Your task to perform on an android device: Search for "macbook" on bestbuy, select the first entry, and add it to the cart. Image 0: 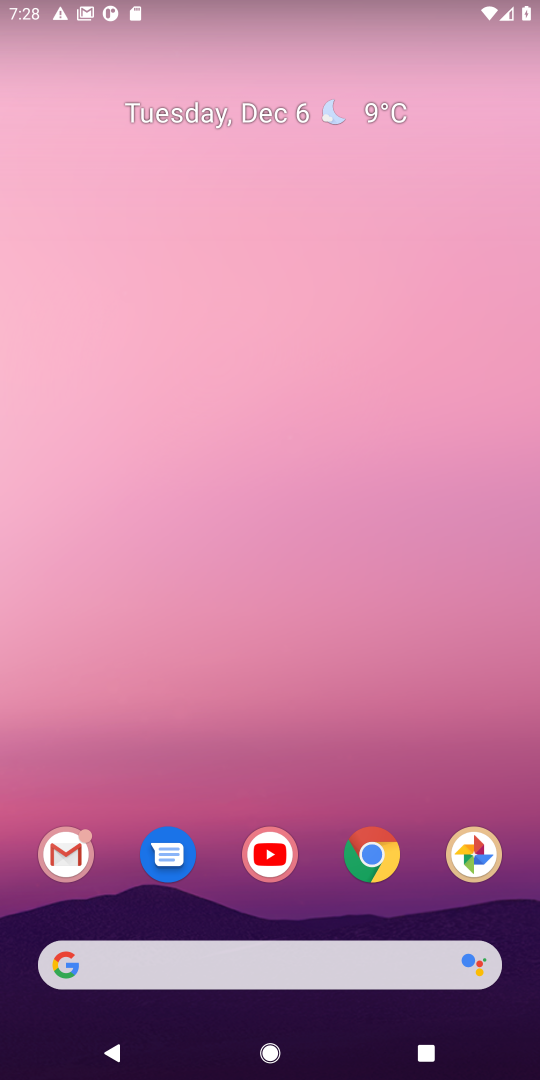
Step 0: click (372, 857)
Your task to perform on an android device: Search for "macbook" on bestbuy, select the first entry, and add it to the cart. Image 1: 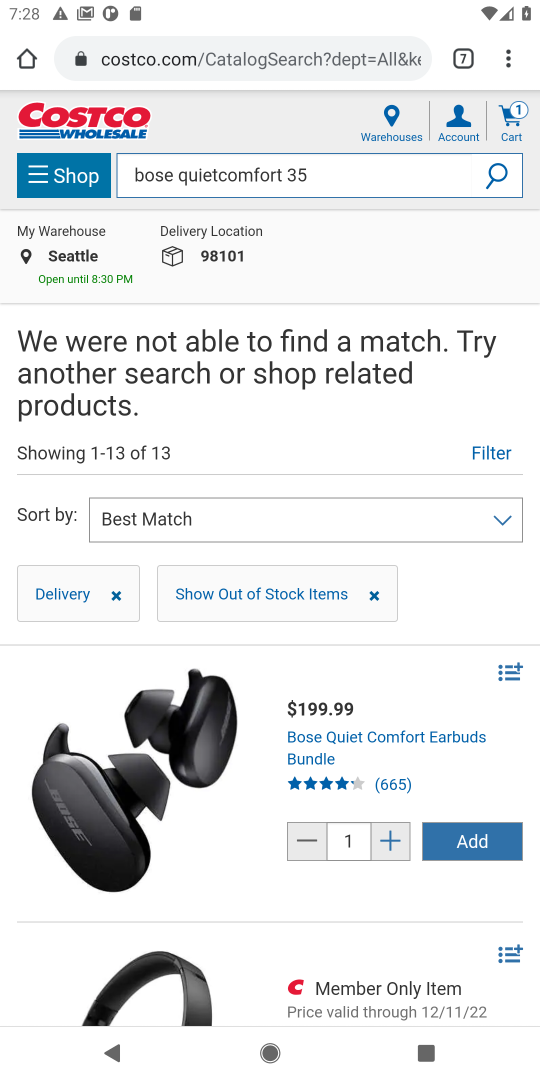
Step 1: click (462, 44)
Your task to perform on an android device: Search for "macbook" on bestbuy, select the first entry, and add it to the cart. Image 2: 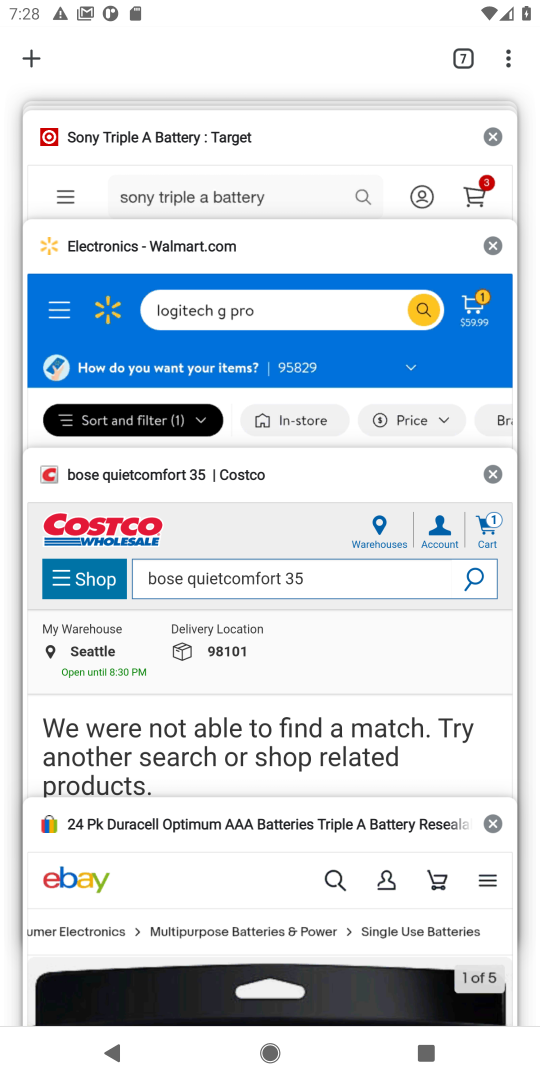
Step 2: drag from (295, 107) to (265, 210)
Your task to perform on an android device: Search for "macbook" on bestbuy, select the first entry, and add it to the cart. Image 3: 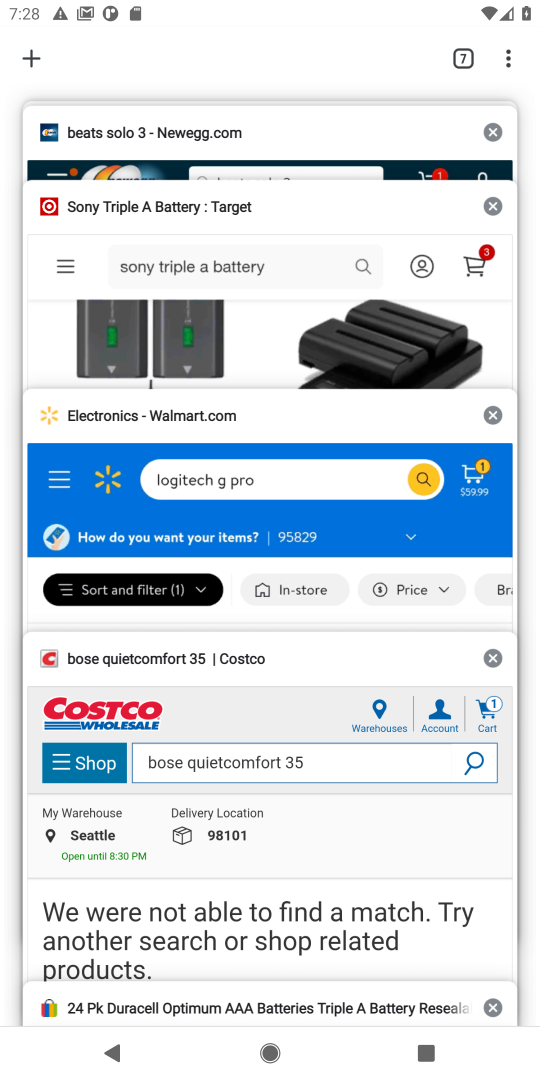
Step 3: drag from (230, 129) to (251, 337)
Your task to perform on an android device: Search for "macbook" on bestbuy, select the first entry, and add it to the cart. Image 4: 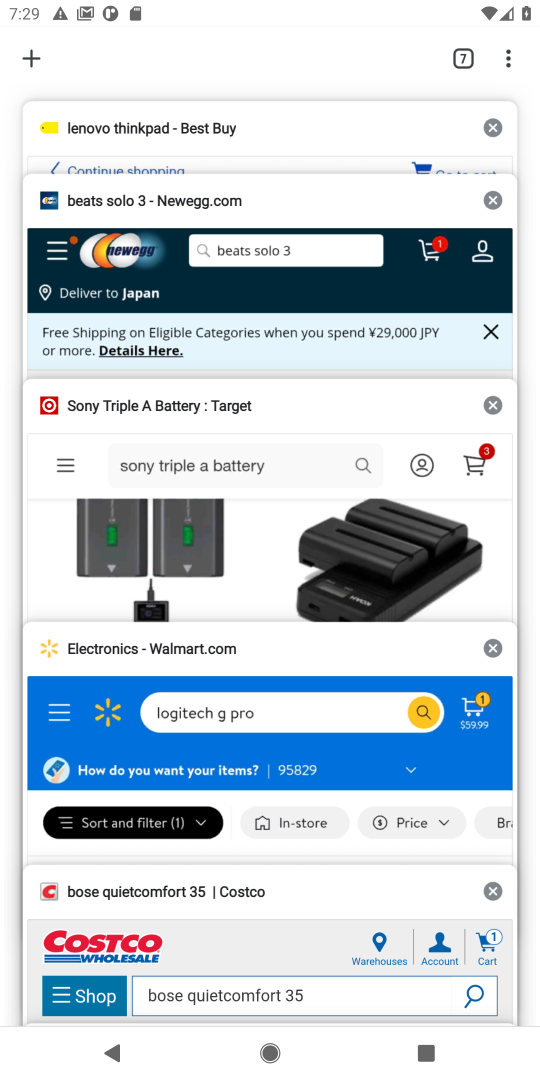
Step 4: click (201, 123)
Your task to perform on an android device: Search for "macbook" on bestbuy, select the first entry, and add it to the cart. Image 5: 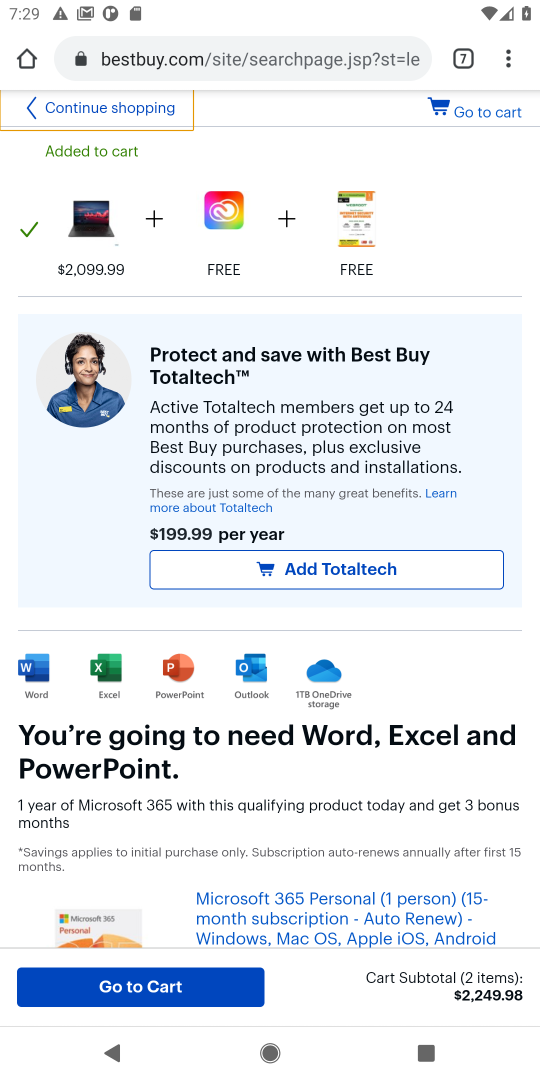
Step 5: click (157, 108)
Your task to perform on an android device: Search for "macbook" on bestbuy, select the first entry, and add it to the cart. Image 6: 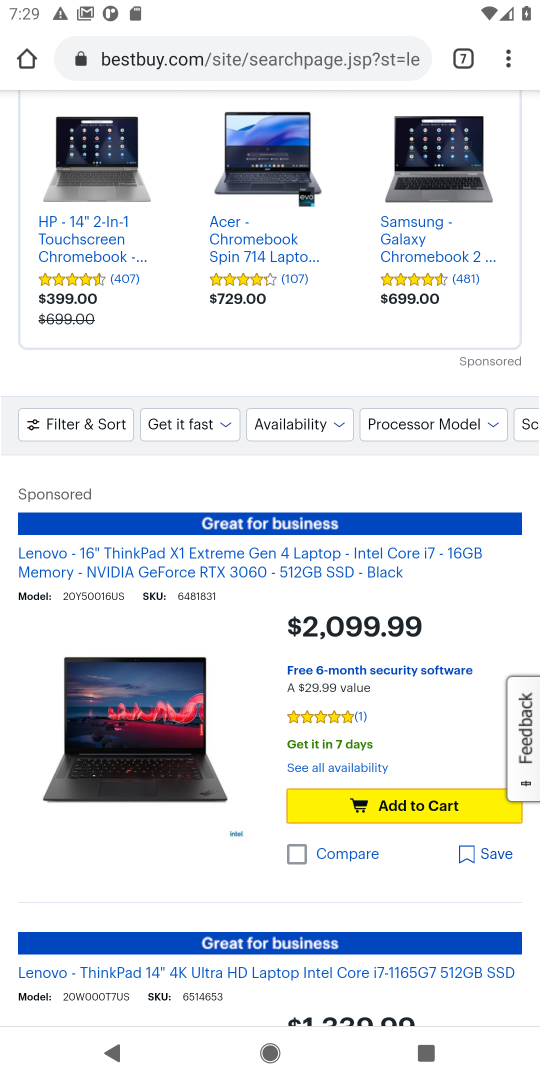
Step 6: drag from (171, 202) to (217, 511)
Your task to perform on an android device: Search for "macbook" on bestbuy, select the first entry, and add it to the cart. Image 7: 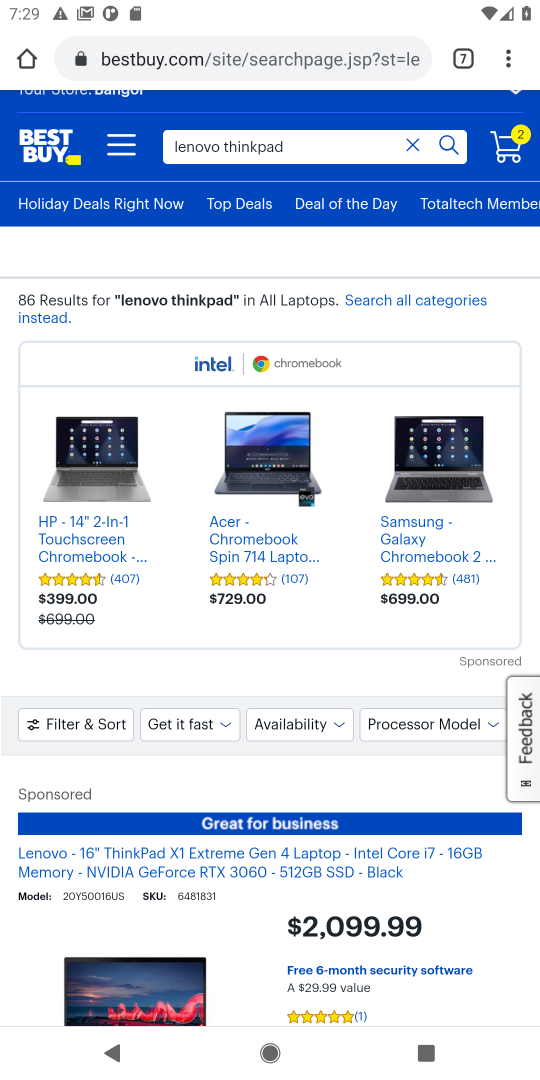
Step 7: click (412, 149)
Your task to perform on an android device: Search for "macbook" on bestbuy, select the first entry, and add it to the cart. Image 8: 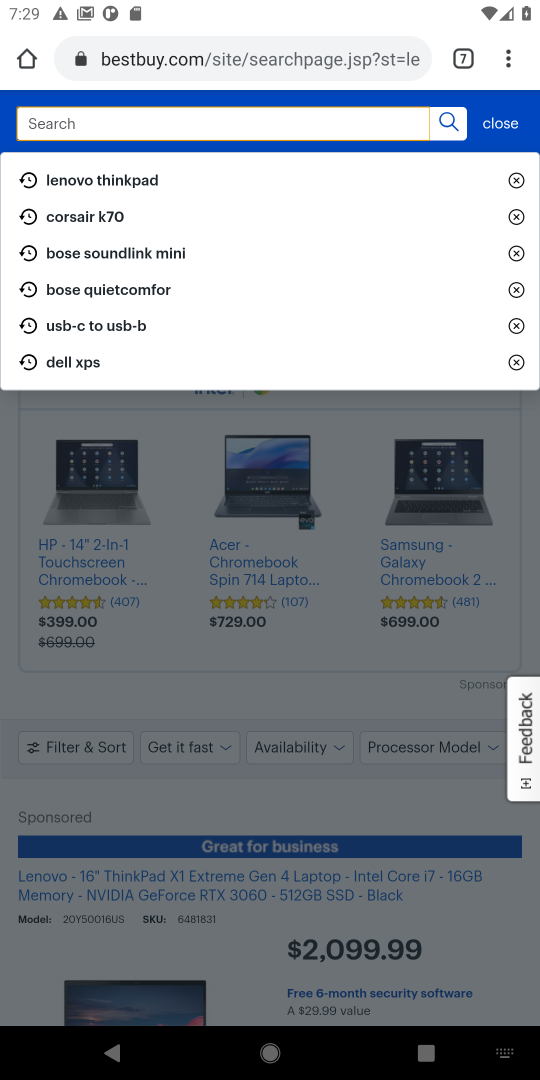
Step 8: type "macbook"
Your task to perform on an android device: Search for "macbook" on bestbuy, select the first entry, and add it to the cart. Image 9: 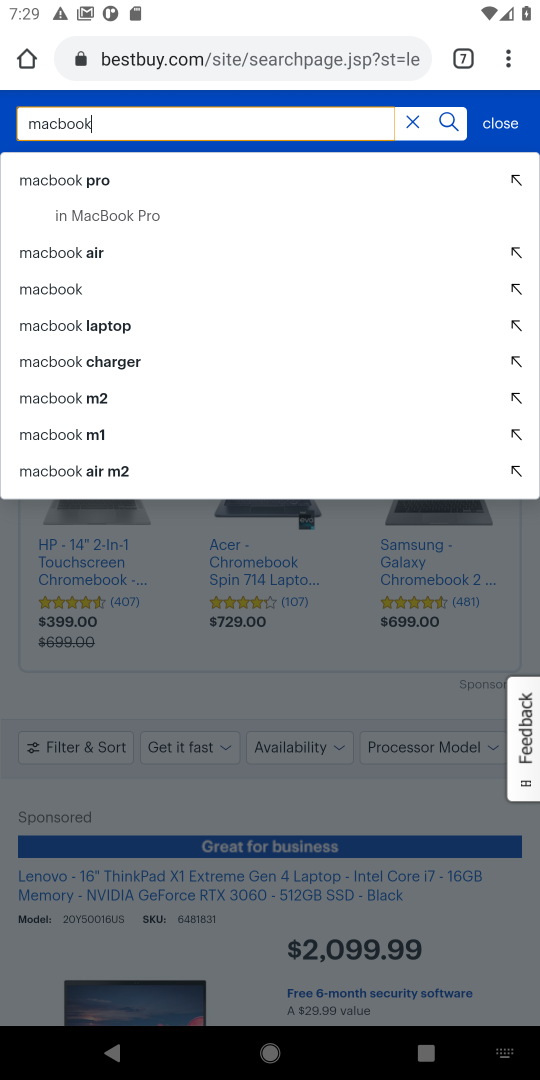
Step 9: click (63, 286)
Your task to perform on an android device: Search for "macbook" on bestbuy, select the first entry, and add it to the cart. Image 10: 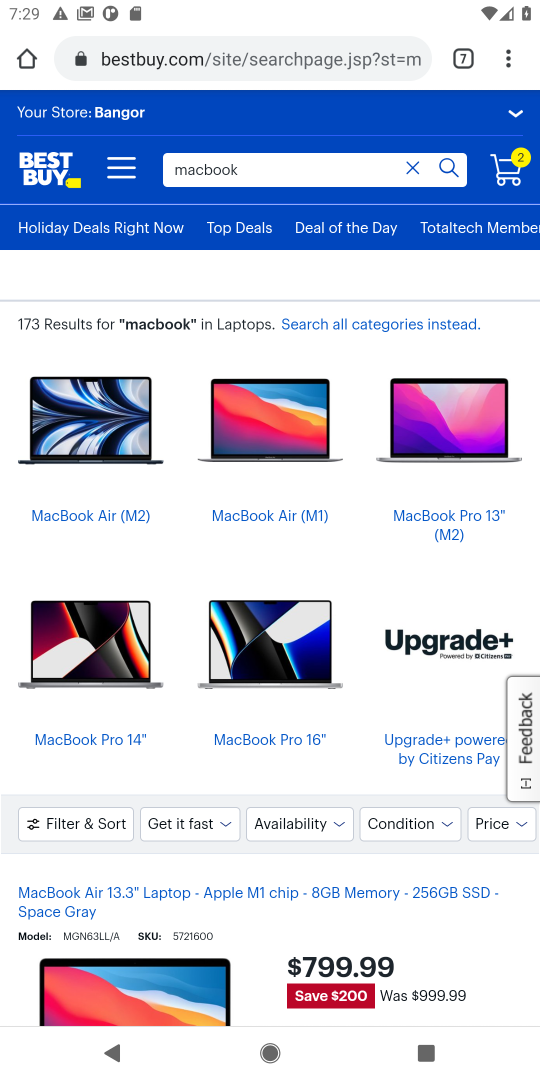
Step 10: drag from (239, 775) to (366, 222)
Your task to perform on an android device: Search for "macbook" on bestbuy, select the first entry, and add it to the cart. Image 11: 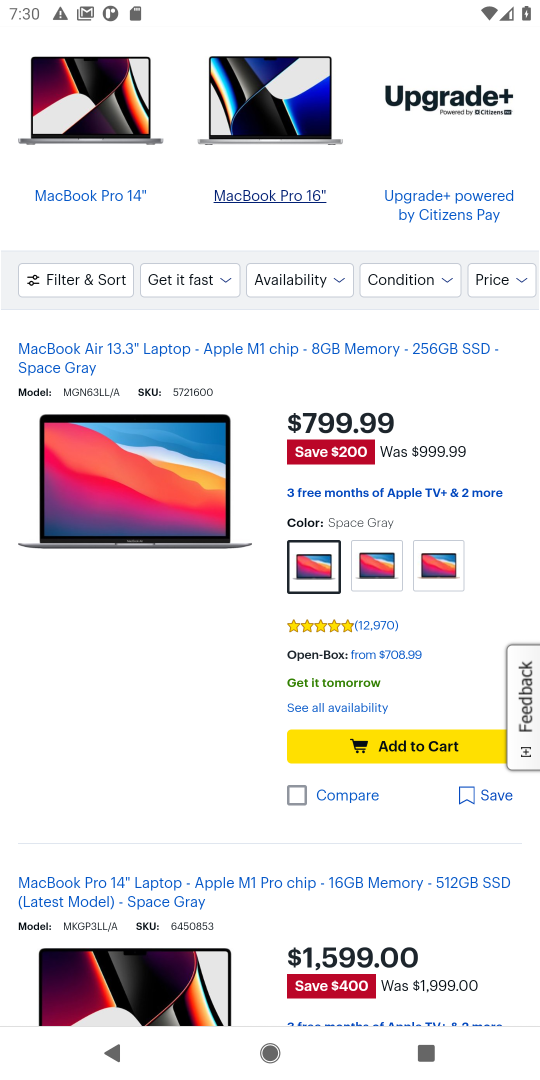
Step 11: click (385, 739)
Your task to perform on an android device: Search for "macbook" on bestbuy, select the first entry, and add it to the cart. Image 12: 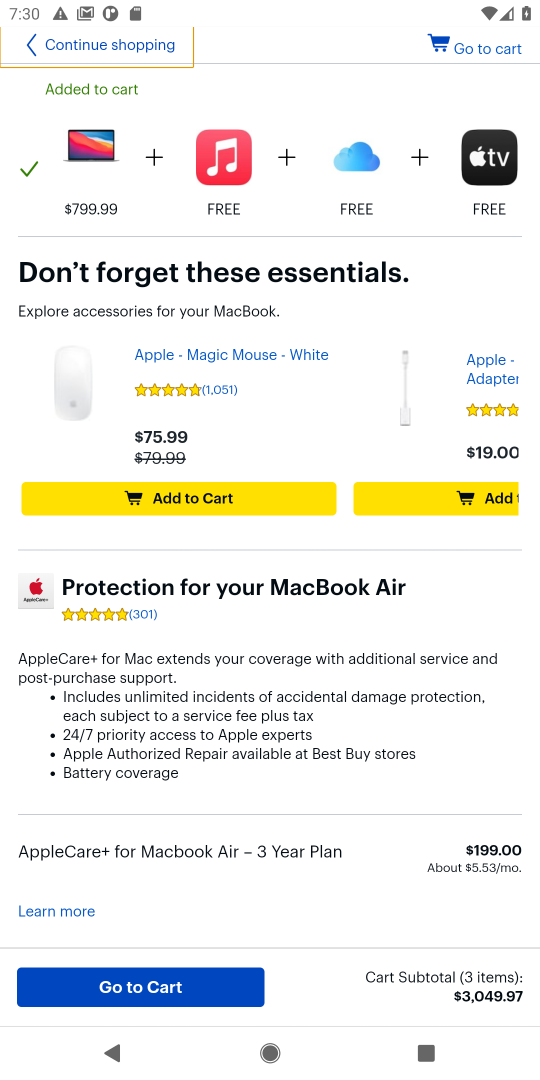
Step 12: task complete